Your task to perform on an android device: turn off translation in the chrome app Image 0: 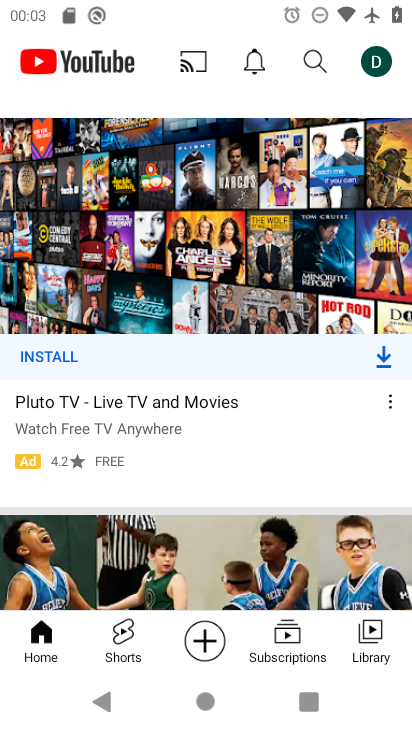
Step 0: press home button
Your task to perform on an android device: turn off translation in the chrome app Image 1: 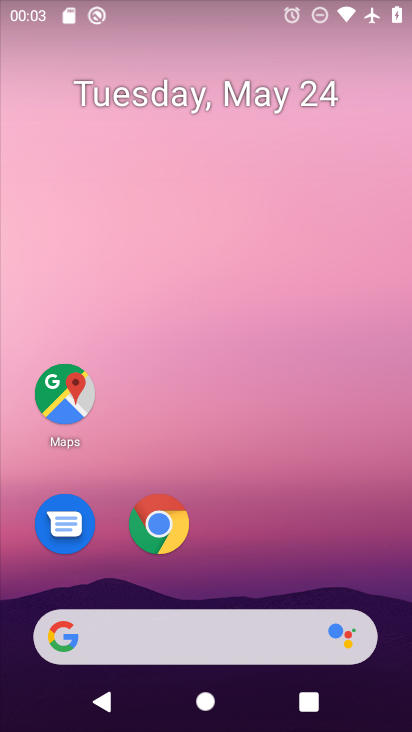
Step 1: click (180, 534)
Your task to perform on an android device: turn off translation in the chrome app Image 2: 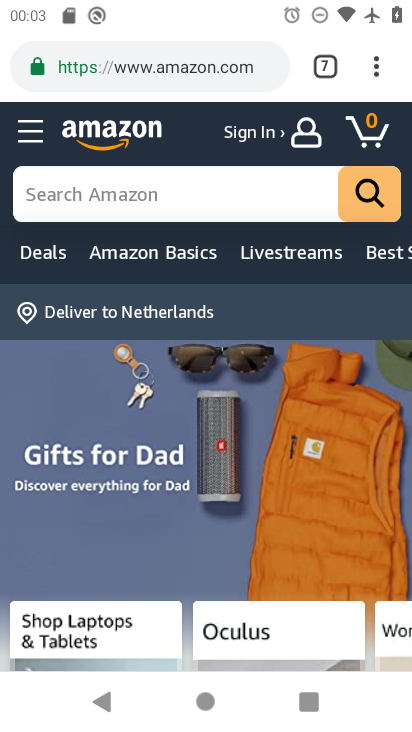
Step 2: drag from (367, 71) to (138, 539)
Your task to perform on an android device: turn off translation in the chrome app Image 3: 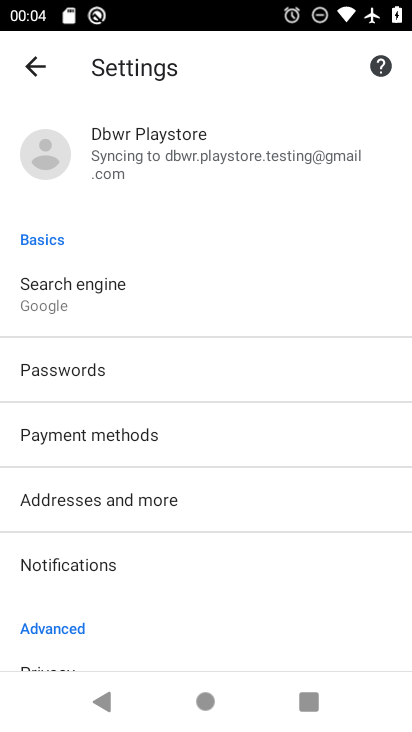
Step 3: drag from (175, 606) to (191, 354)
Your task to perform on an android device: turn off translation in the chrome app Image 4: 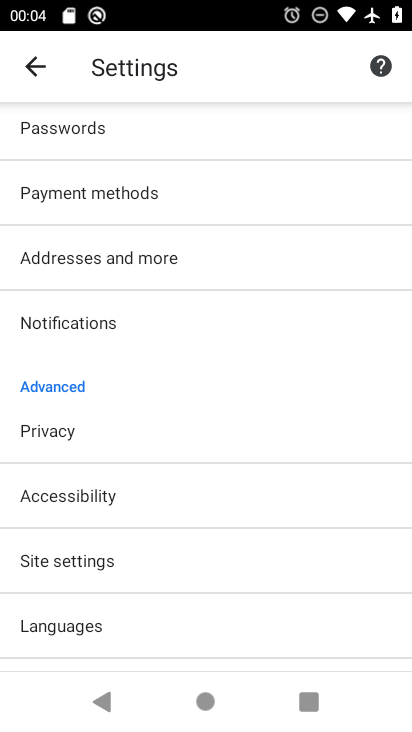
Step 4: click (98, 603)
Your task to perform on an android device: turn off translation in the chrome app Image 5: 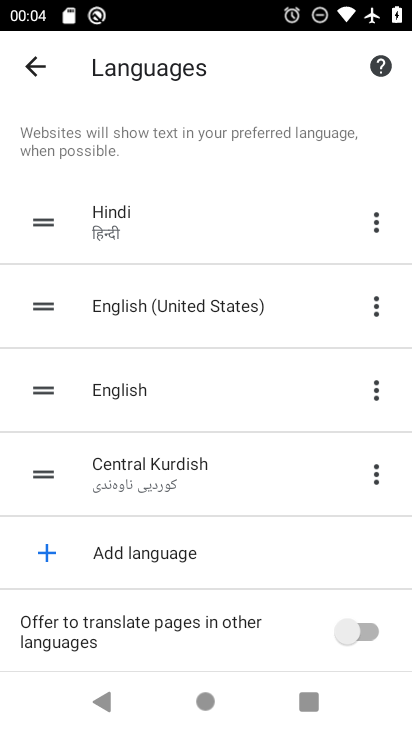
Step 5: click (365, 631)
Your task to perform on an android device: turn off translation in the chrome app Image 6: 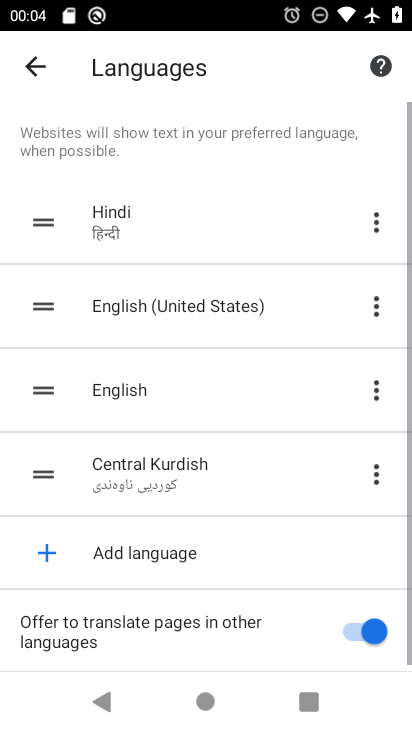
Step 6: click (341, 631)
Your task to perform on an android device: turn off translation in the chrome app Image 7: 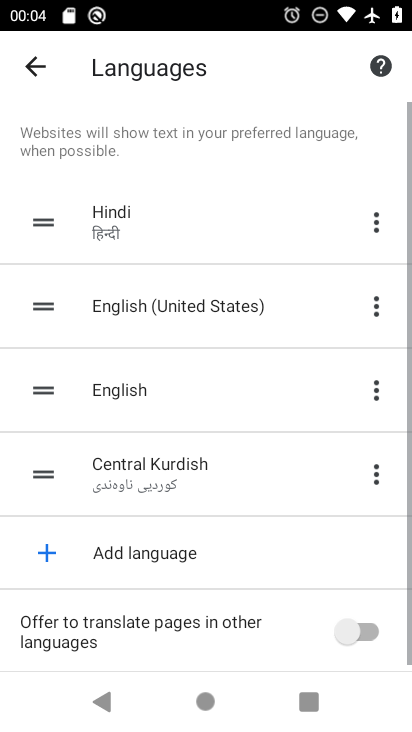
Step 7: task complete